Your task to perform on an android device: visit the assistant section in the google photos Image 0: 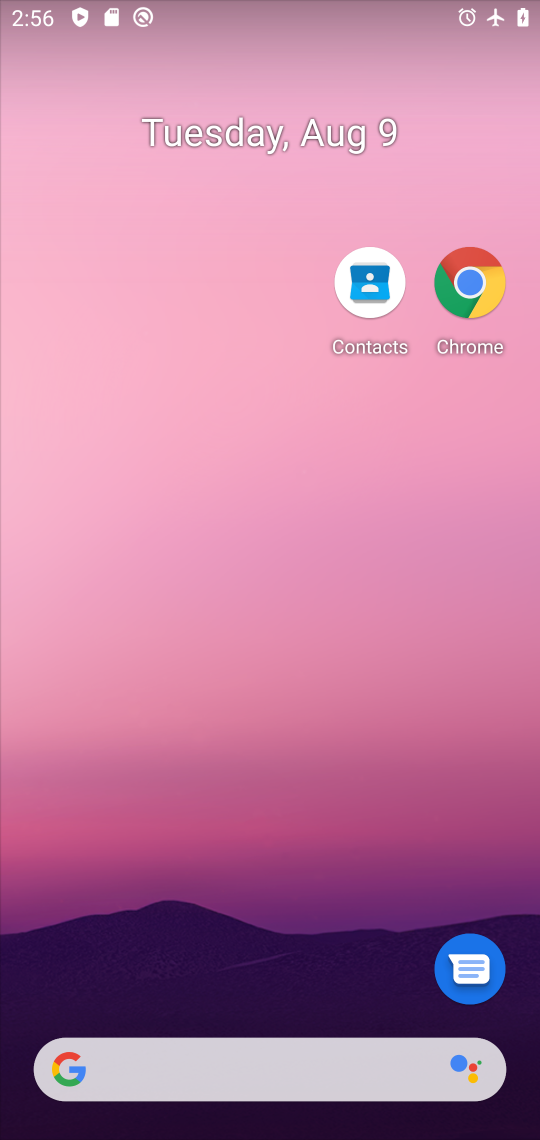
Step 0: drag from (231, 1013) to (325, 207)
Your task to perform on an android device: visit the assistant section in the google photos Image 1: 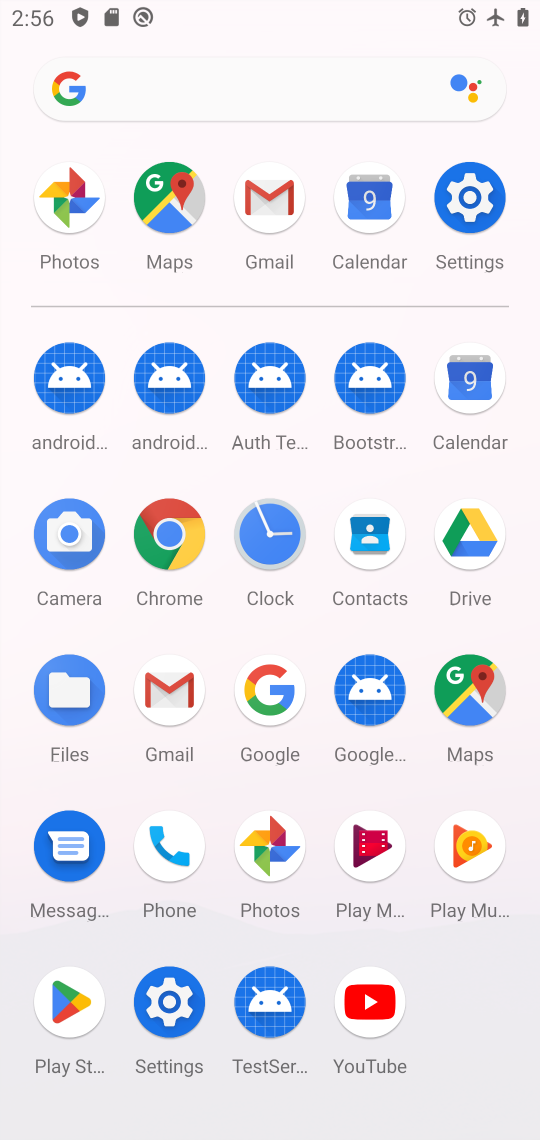
Step 1: click (274, 847)
Your task to perform on an android device: visit the assistant section in the google photos Image 2: 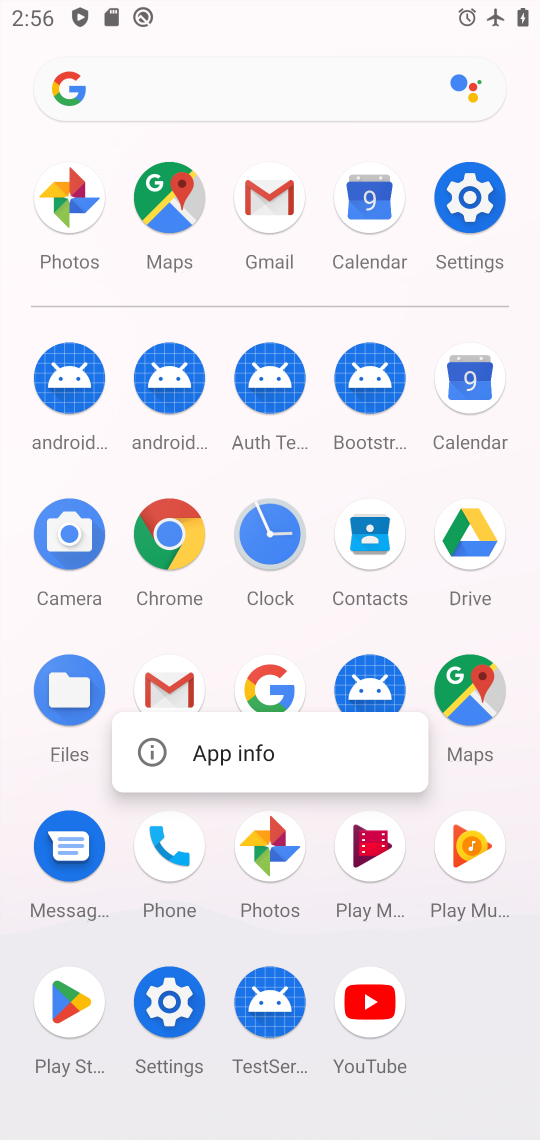
Step 2: click (271, 834)
Your task to perform on an android device: visit the assistant section in the google photos Image 3: 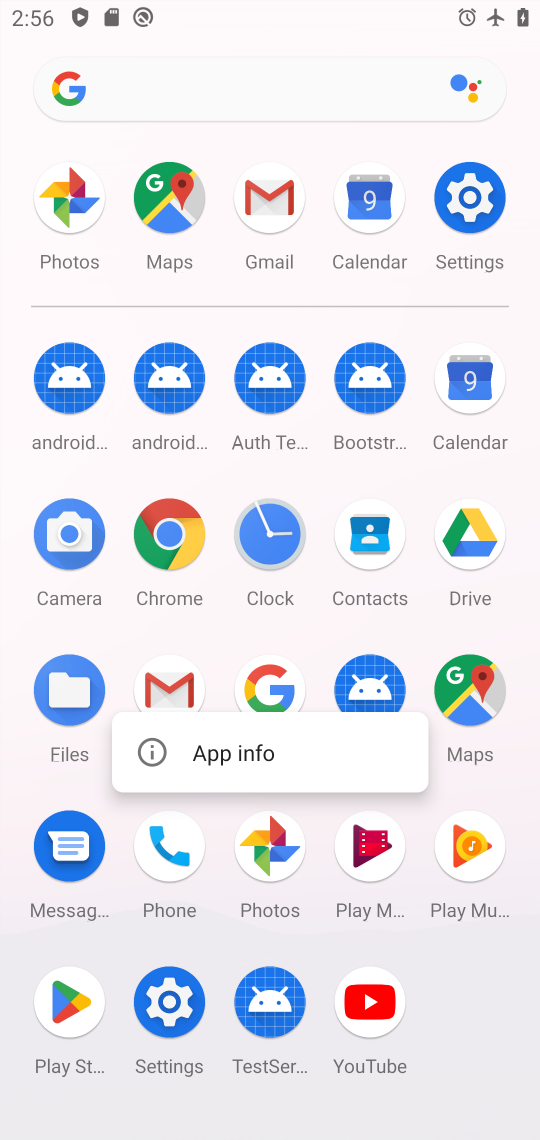
Step 3: click (249, 750)
Your task to perform on an android device: visit the assistant section in the google photos Image 4: 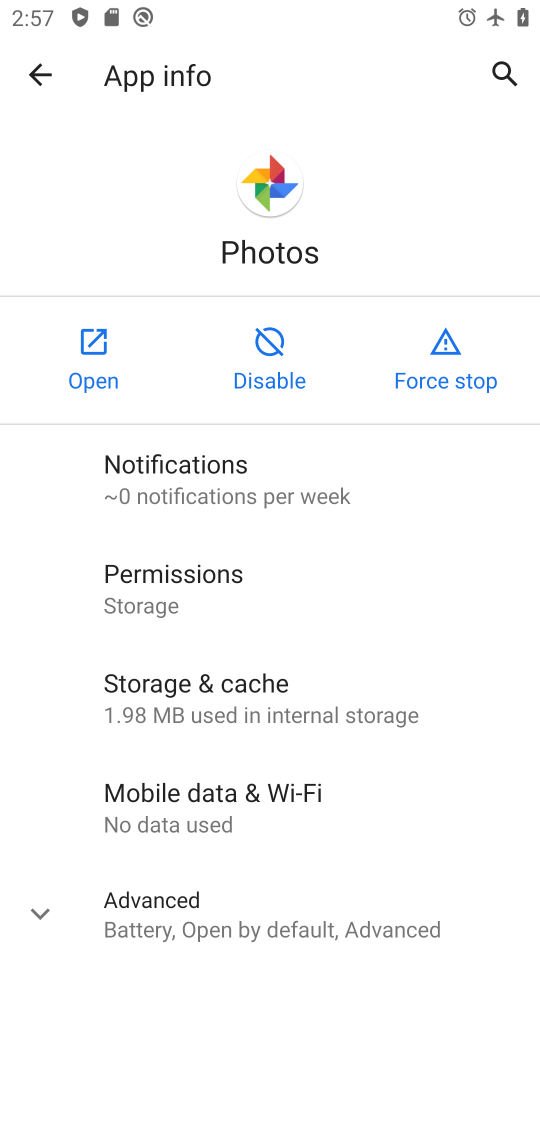
Step 4: click (87, 357)
Your task to perform on an android device: visit the assistant section in the google photos Image 5: 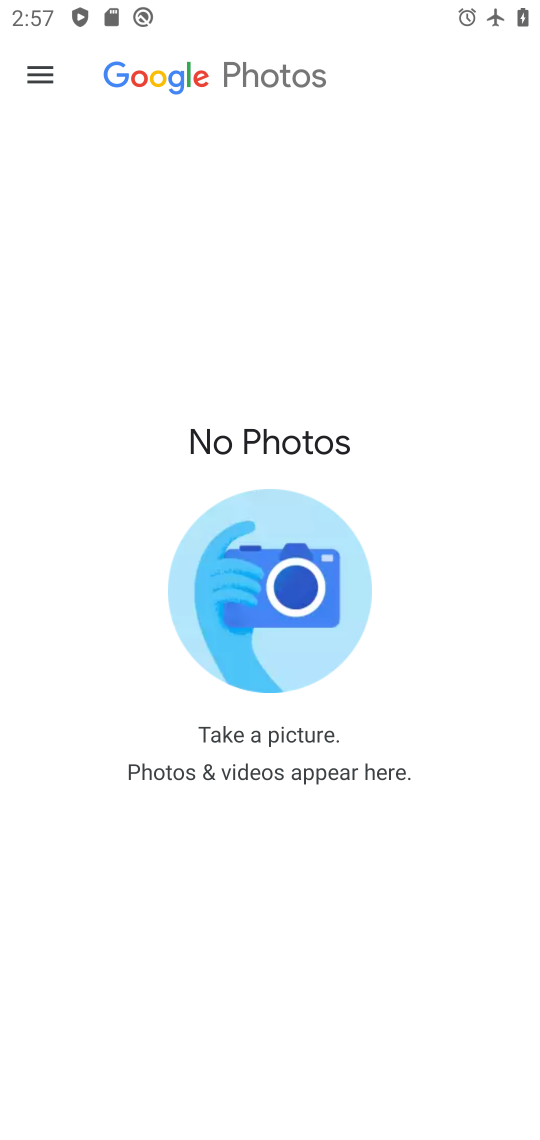
Step 5: click (305, 492)
Your task to perform on an android device: visit the assistant section in the google photos Image 6: 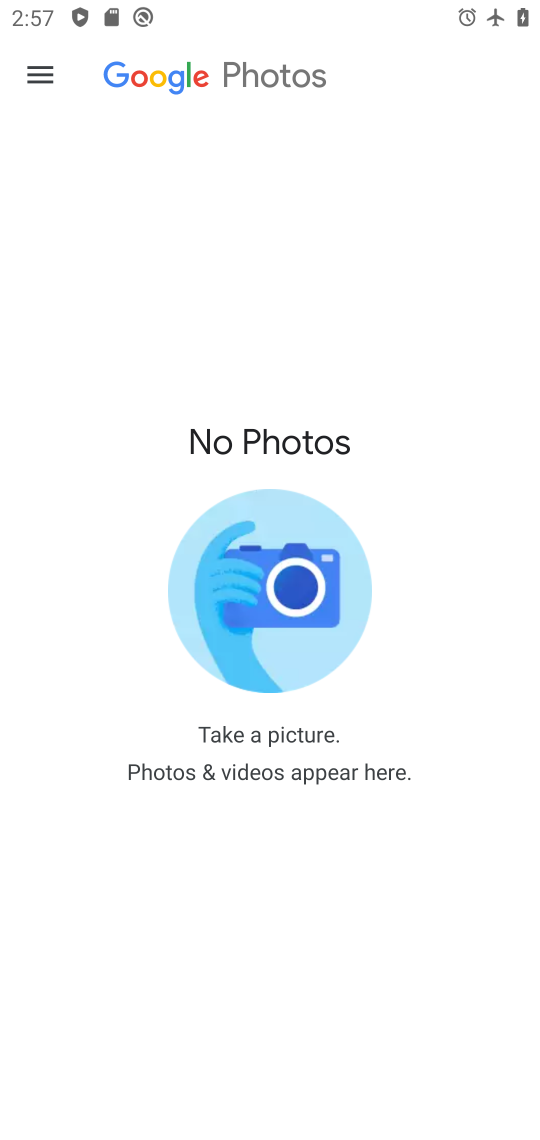
Step 6: drag from (225, 374) to (228, 656)
Your task to perform on an android device: visit the assistant section in the google photos Image 7: 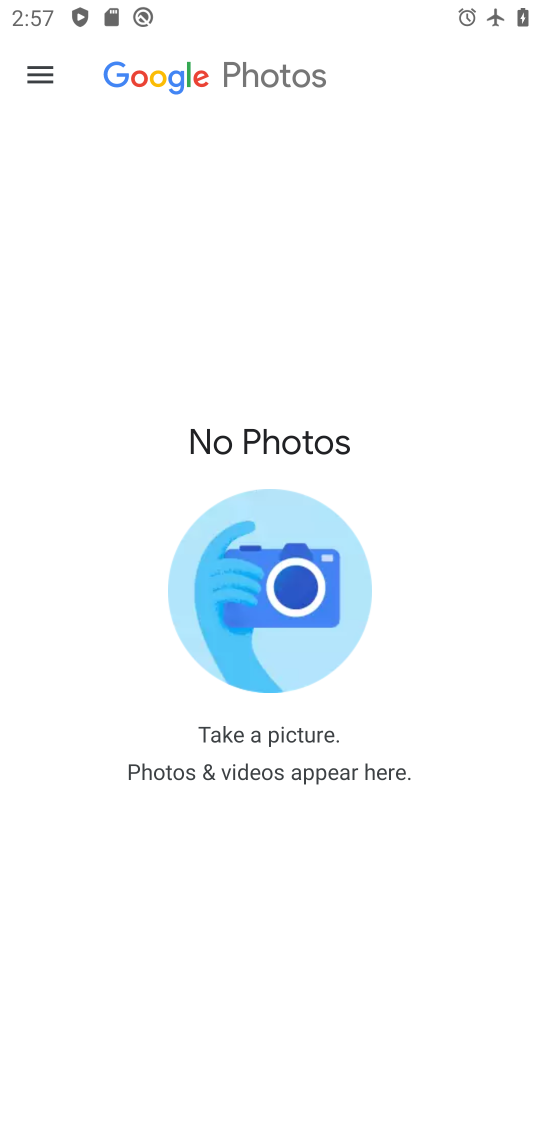
Step 7: click (71, 87)
Your task to perform on an android device: visit the assistant section in the google photos Image 8: 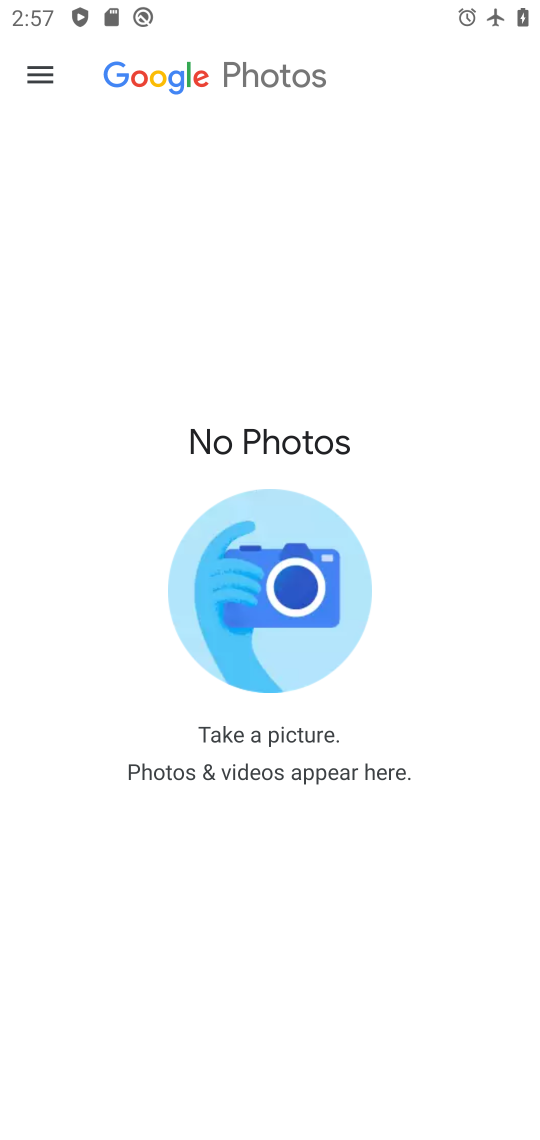
Step 8: click (68, 89)
Your task to perform on an android device: visit the assistant section in the google photos Image 9: 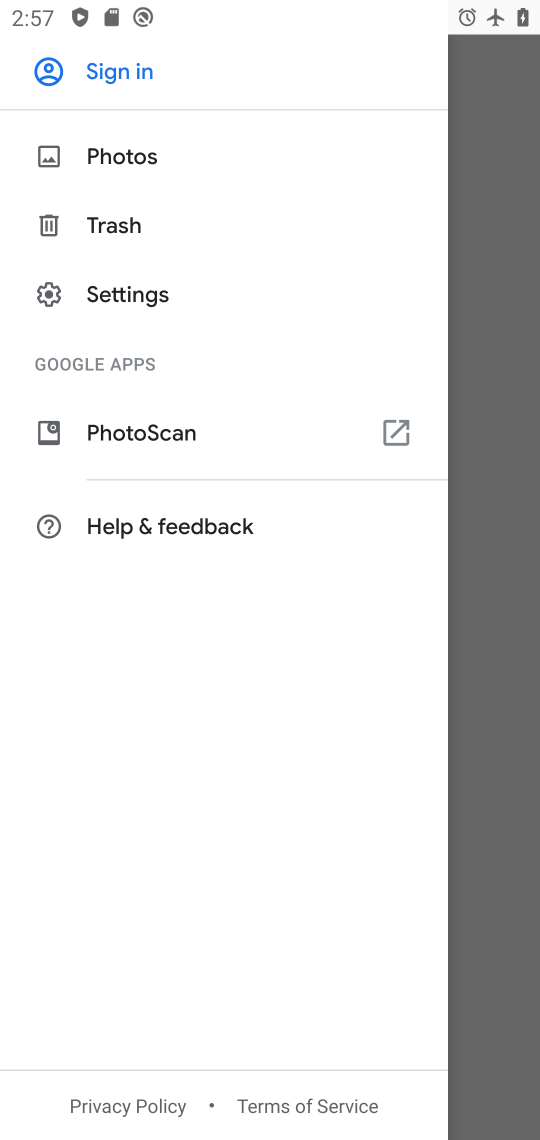
Step 9: task complete